Your task to perform on an android device: move a message to another label in the gmail app Image 0: 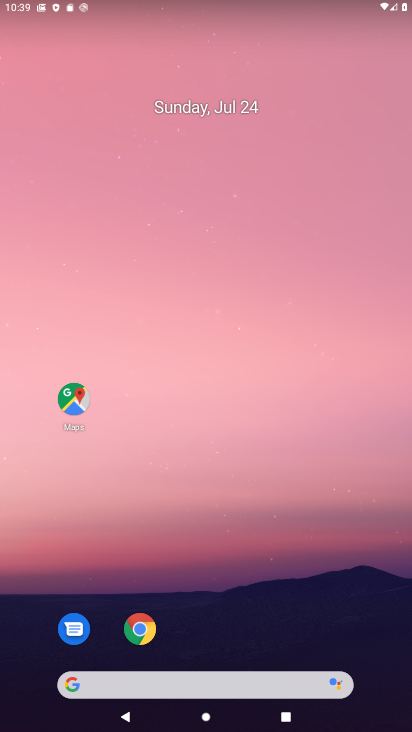
Step 0: drag from (259, 624) to (199, 6)
Your task to perform on an android device: move a message to another label in the gmail app Image 1: 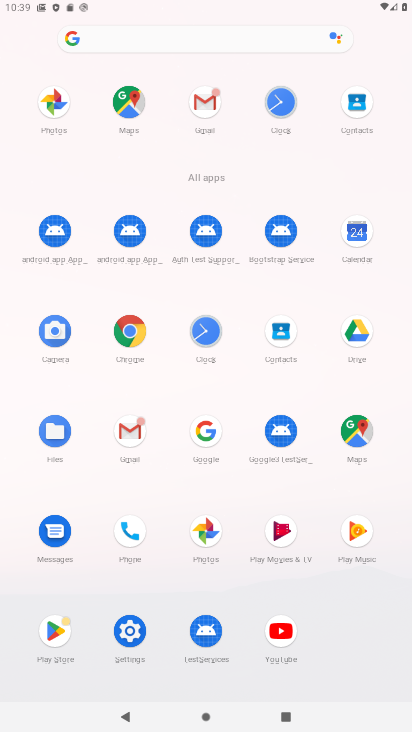
Step 1: click (206, 110)
Your task to perform on an android device: move a message to another label in the gmail app Image 2: 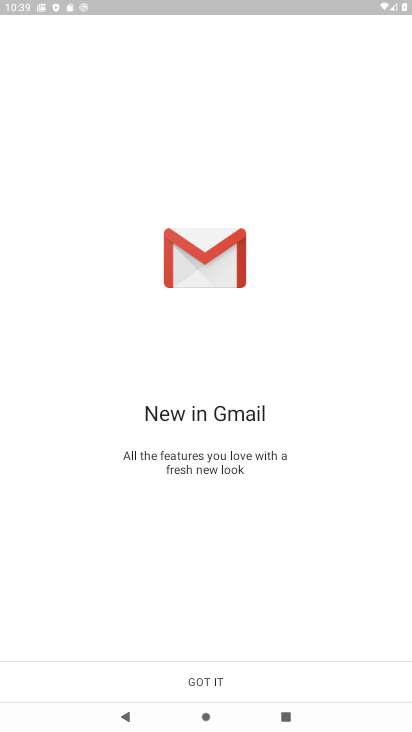
Step 2: click (218, 675)
Your task to perform on an android device: move a message to another label in the gmail app Image 3: 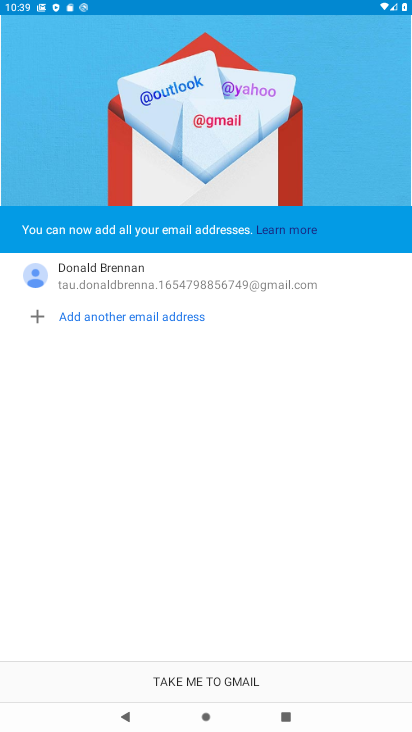
Step 3: click (218, 675)
Your task to perform on an android device: move a message to another label in the gmail app Image 4: 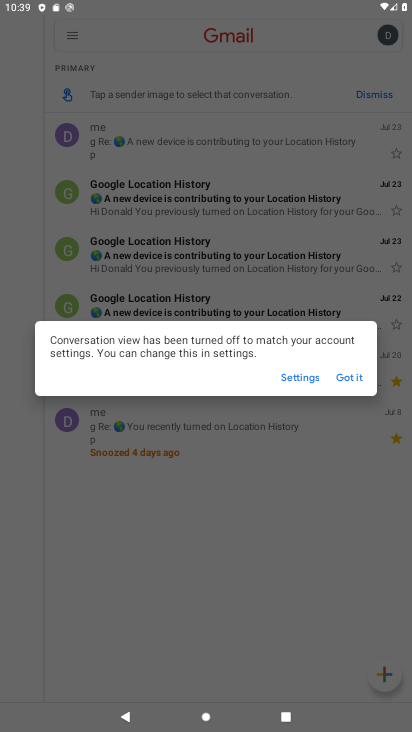
Step 4: click (351, 379)
Your task to perform on an android device: move a message to another label in the gmail app Image 5: 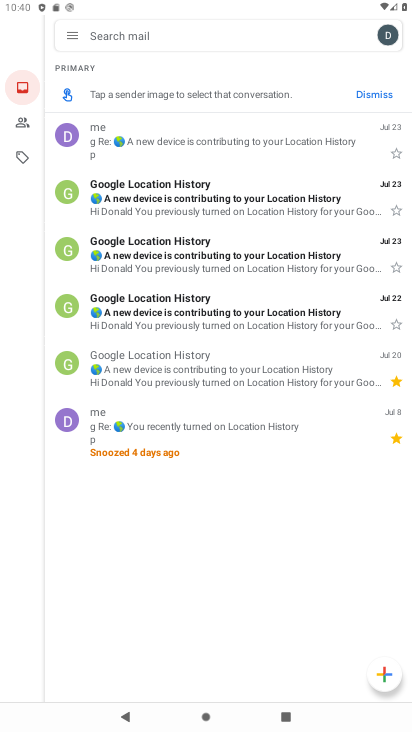
Step 5: click (186, 200)
Your task to perform on an android device: move a message to another label in the gmail app Image 6: 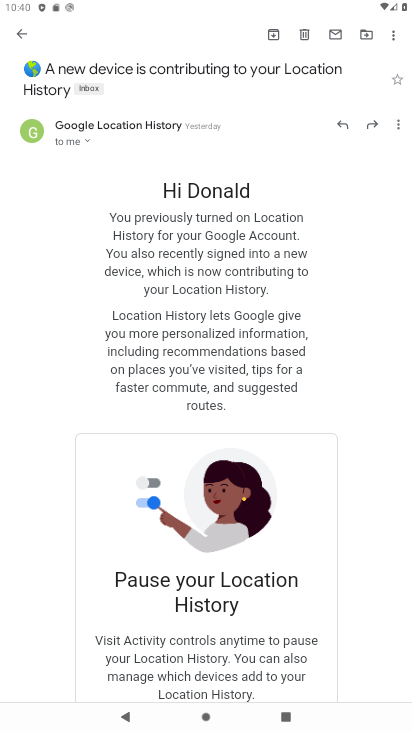
Step 6: click (90, 82)
Your task to perform on an android device: move a message to another label in the gmail app Image 7: 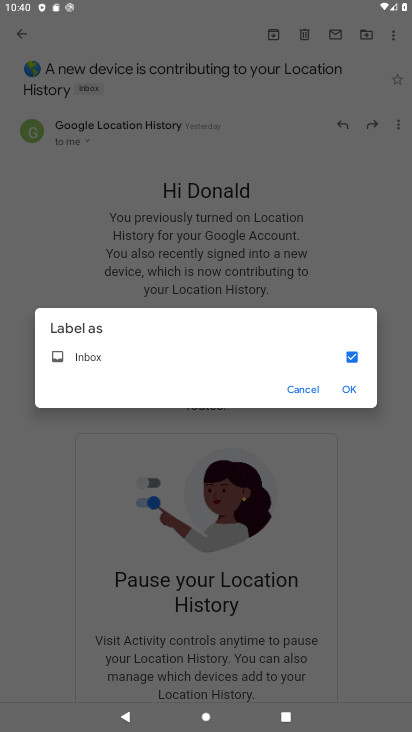
Step 7: click (354, 350)
Your task to perform on an android device: move a message to another label in the gmail app Image 8: 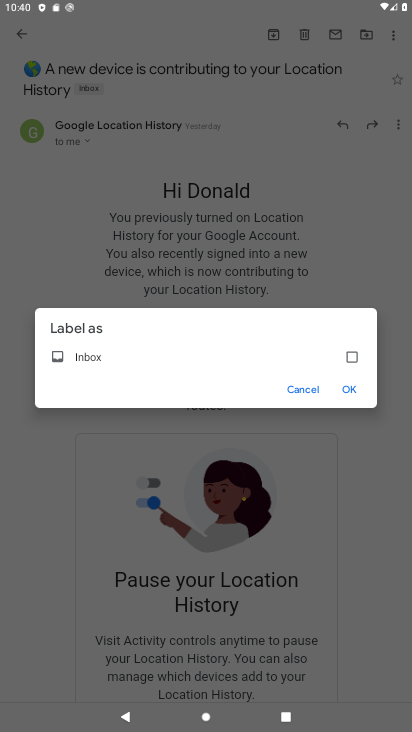
Step 8: click (343, 392)
Your task to perform on an android device: move a message to another label in the gmail app Image 9: 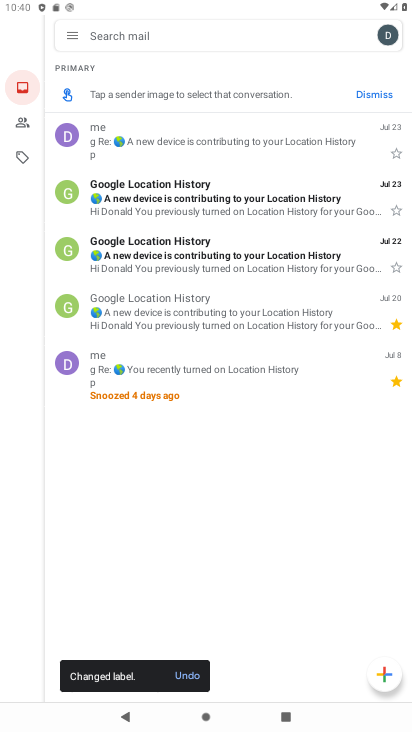
Step 9: task complete